Your task to perform on an android device: Open my contact list Image 0: 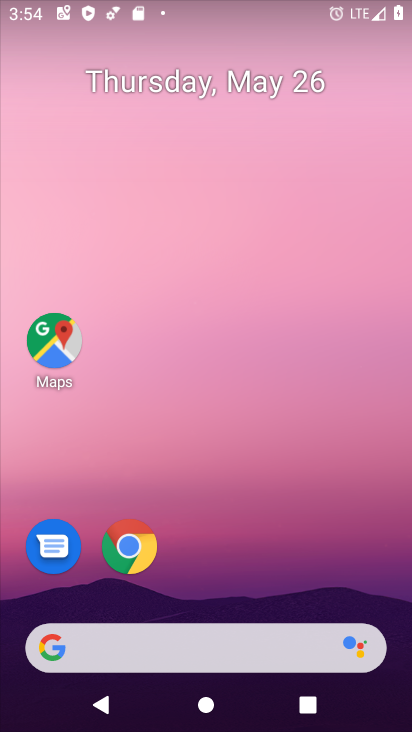
Step 0: drag from (253, 527) to (320, 14)
Your task to perform on an android device: Open my contact list Image 1: 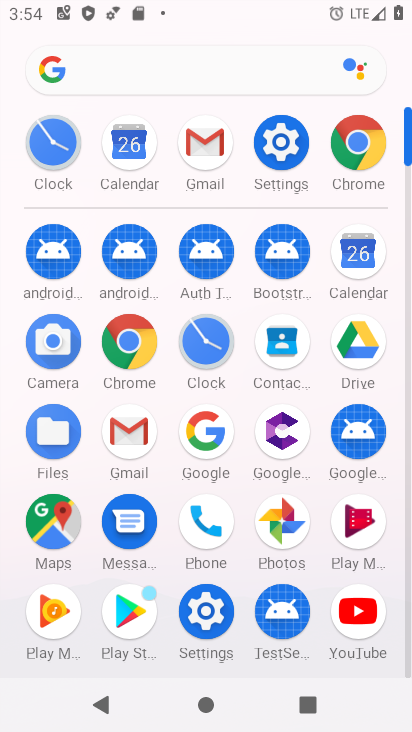
Step 1: click (279, 345)
Your task to perform on an android device: Open my contact list Image 2: 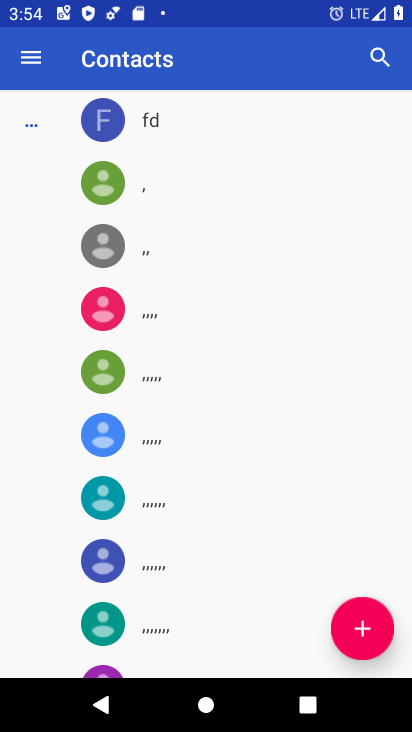
Step 2: task complete